Your task to perform on an android device: turn on priority inbox in the gmail app Image 0: 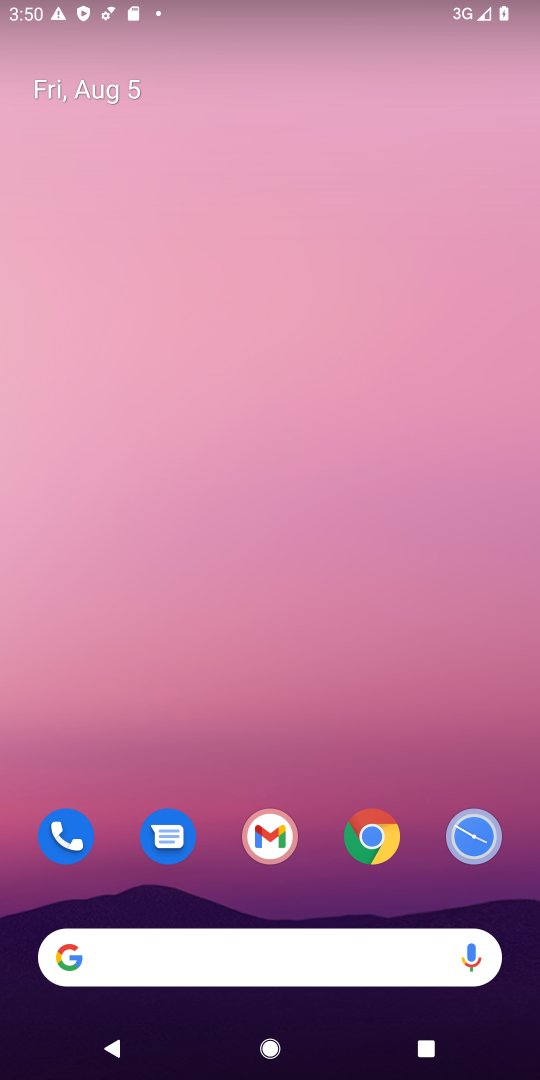
Step 0: drag from (244, 804) to (297, 40)
Your task to perform on an android device: turn on priority inbox in the gmail app Image 1: 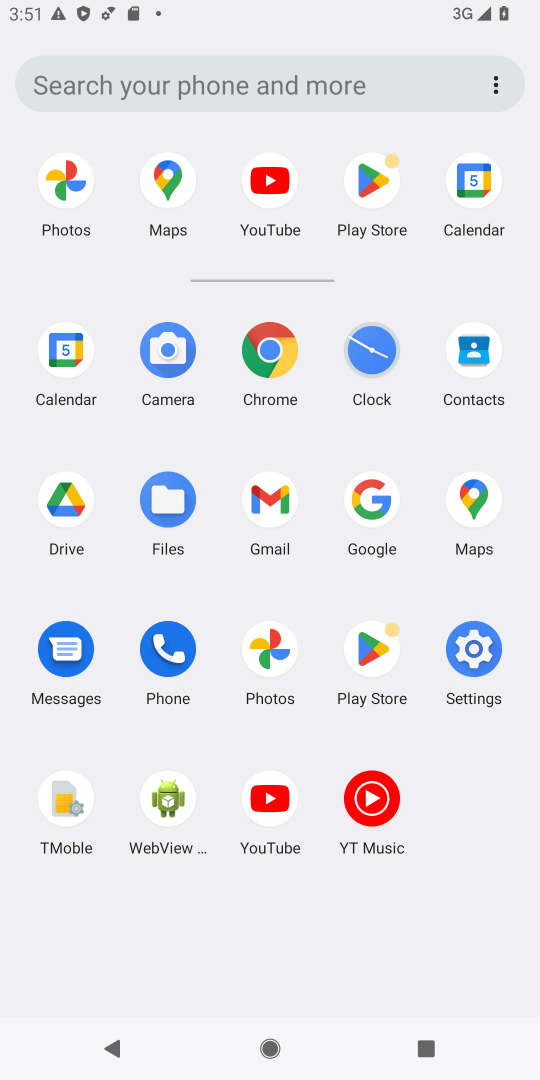
Step 1: click (276, 504)
Your task to perform on an android device: turn on priority inbox in the gmail app Image 2: 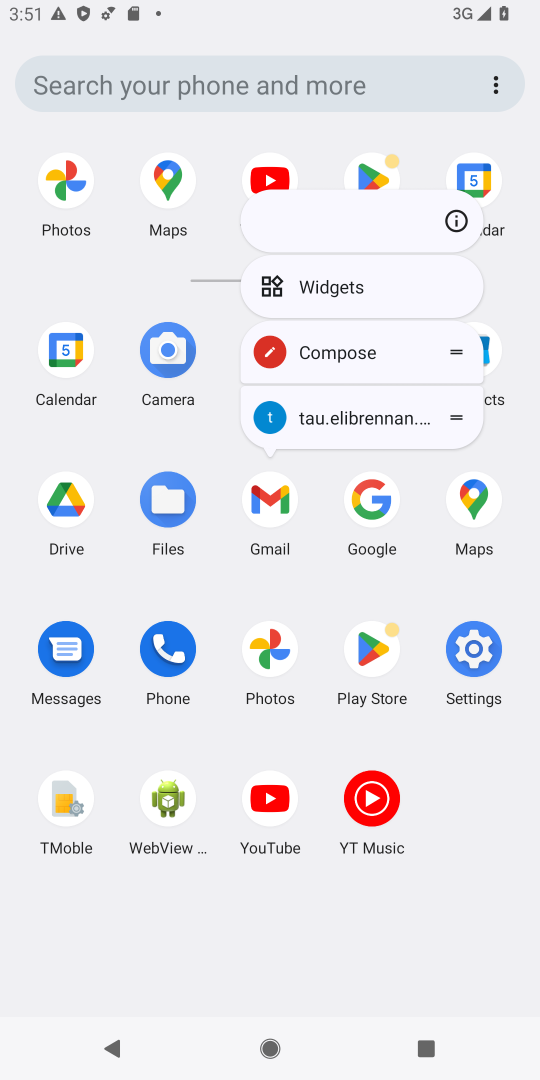
Step 2: click (268, 491)
Your task to perform on an android device: turn on priority inbox in the gmail app Image 3: 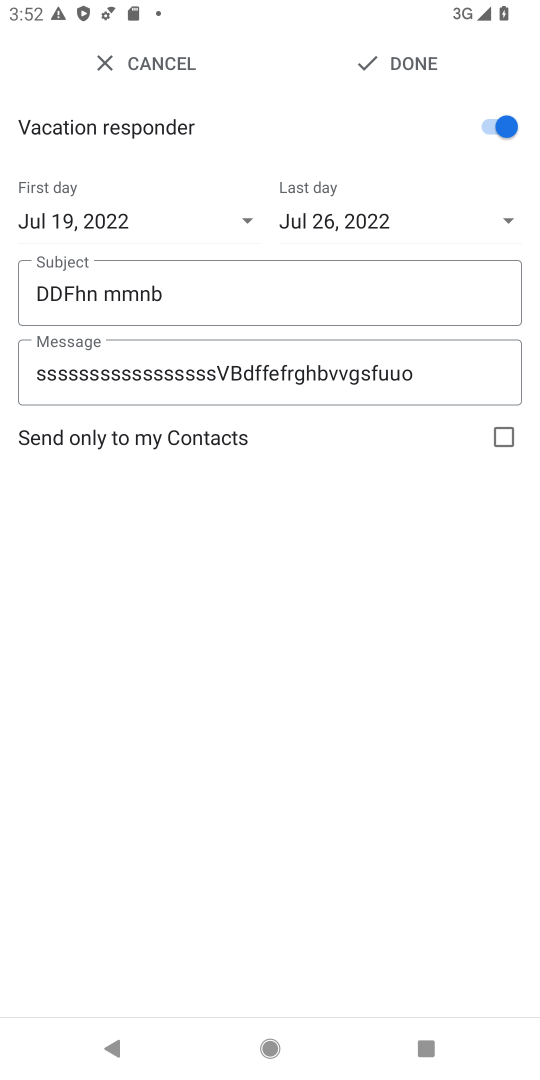
Step 3: click (93, 49)
Your task to perform on an android device: turn on priority inbox in the gmail app Image 4: 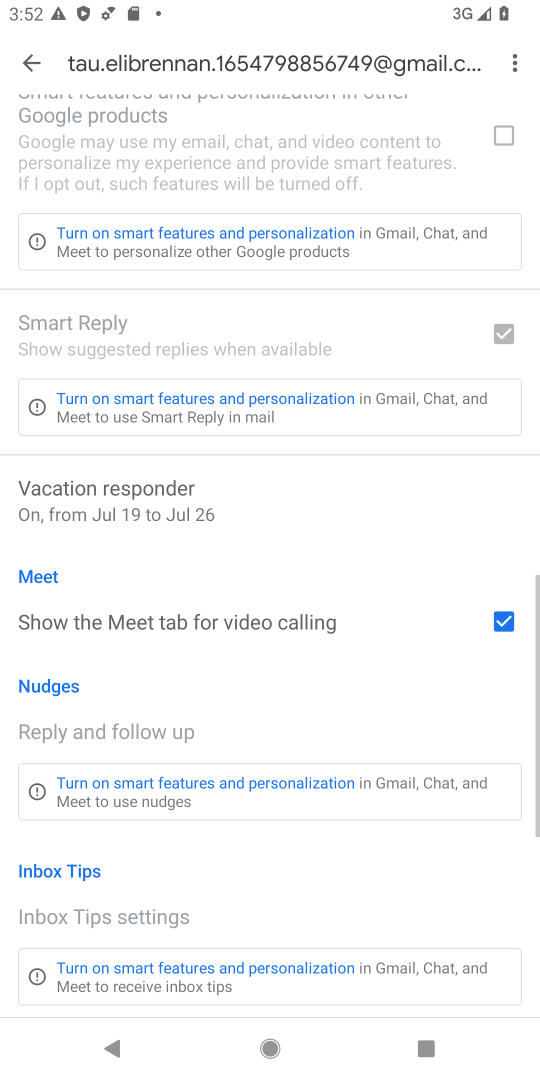
Step 4: drag from (48, 157) to (148, 967)
Your task to perform on an android device: turn on priority inbox in the gmail app Image 5: 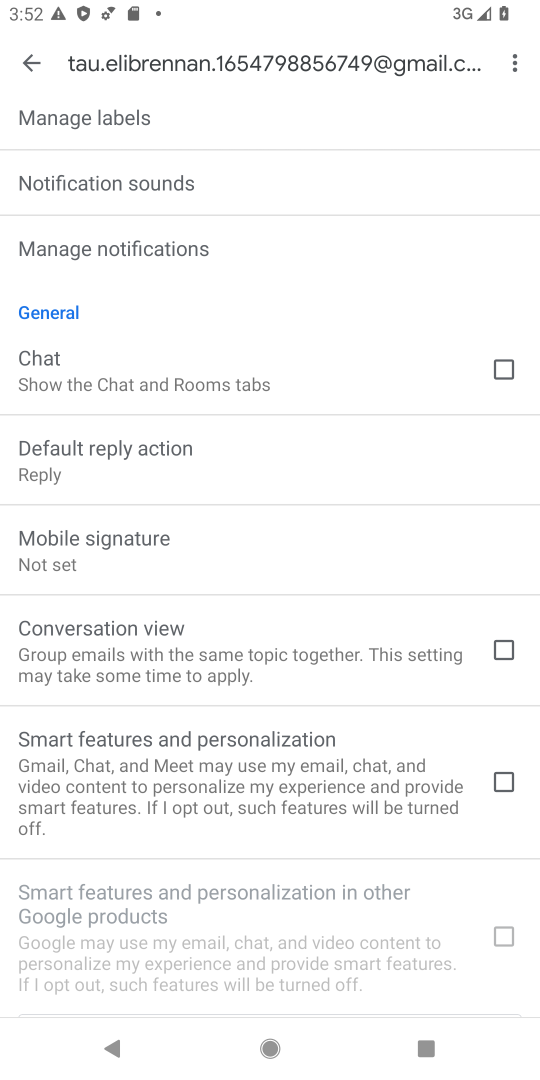
Step 5: drag from (246, 388) to (234, 709)
Your task to perform on an android device: turn on priority inbox in the gmail app Image 6: 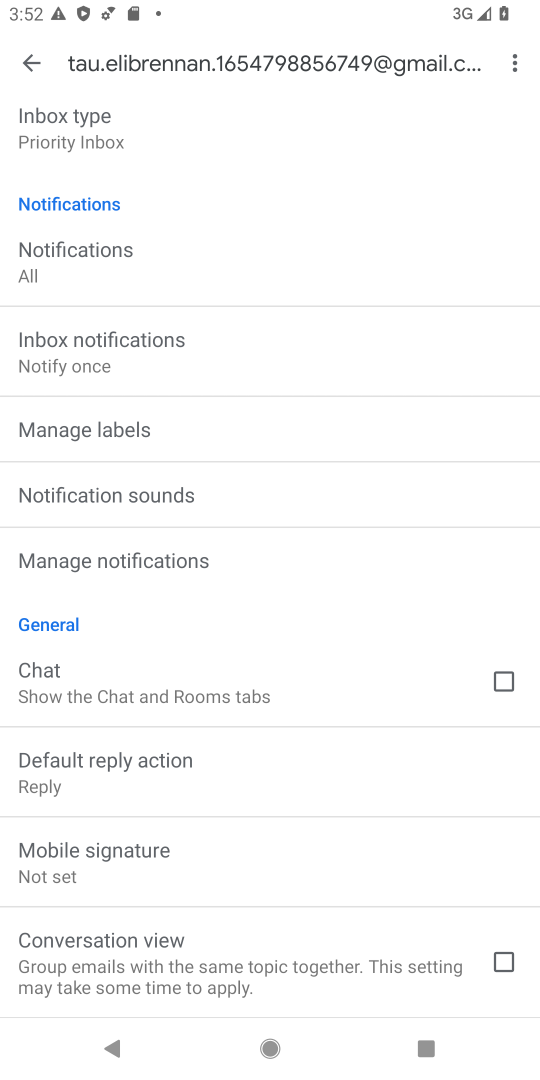
Step 6: click (89, 132)
Your task to perform on an android device: turn on priority inbox in the gmail app Image 7: 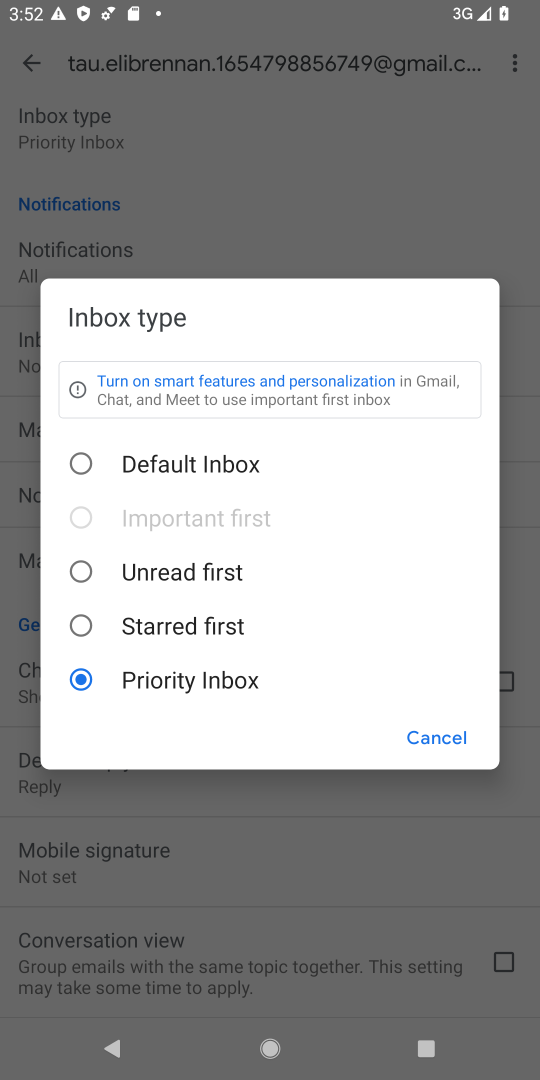
Step 7: task complete